Your task to perform on an android device: toggle location history Image 0: 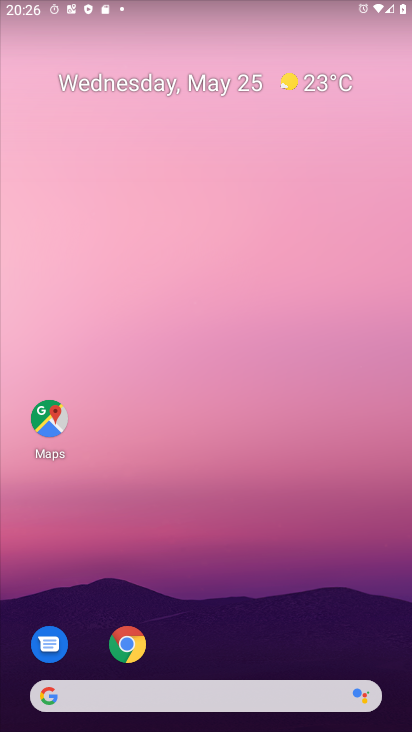
Step 0: press home button
Your task to perform on an android device: toggle location history Image 1: 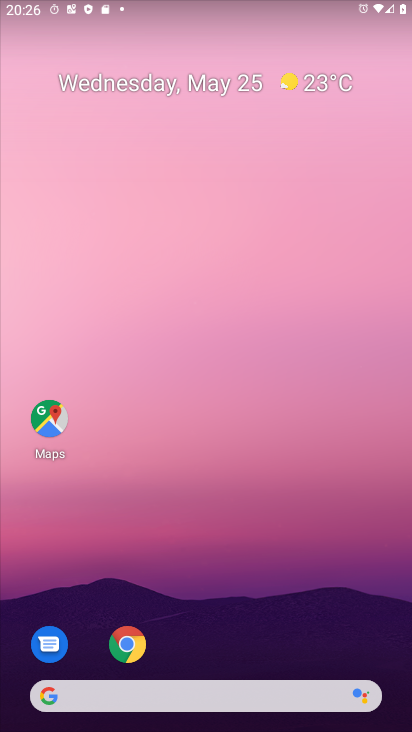
Step 1: drag from (260, 708) to (256, 71)
Your task to perform on an android device: toggle location history Image 2: 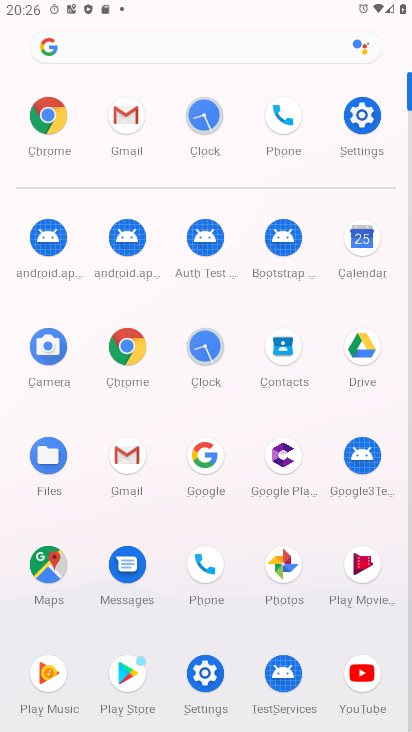
Step 2: click (357, 98)
Your task to perform on an android device: toggle location history Image 3: 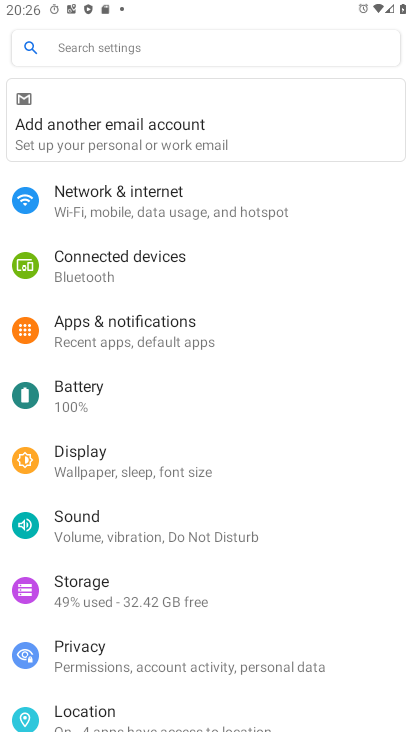
Step 3: click (161, 50)
Your task to perform on an android device: toggle location history Image 4: 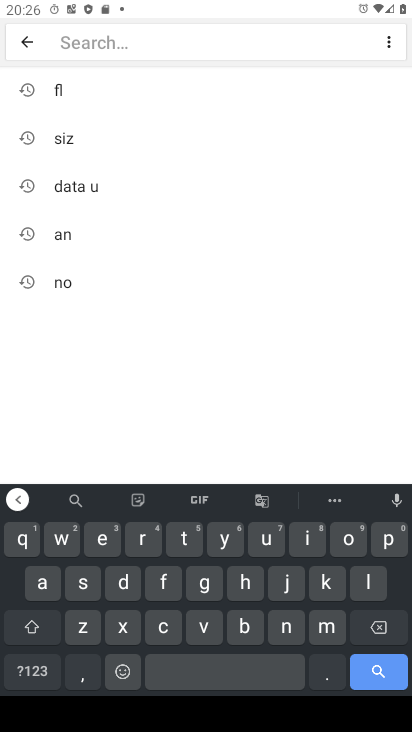
Step 4: click (375, 588)
Your task to perform on an android device: toggle location history Image 5: 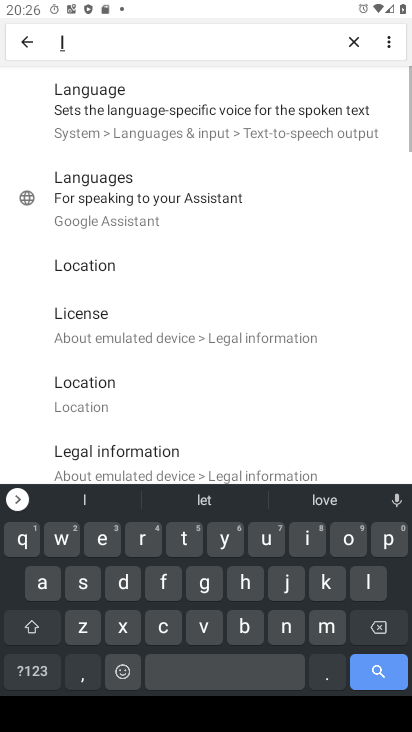
Step 5: click (348, 545)
Your task to perform on an android device: toggle location history Image 6: 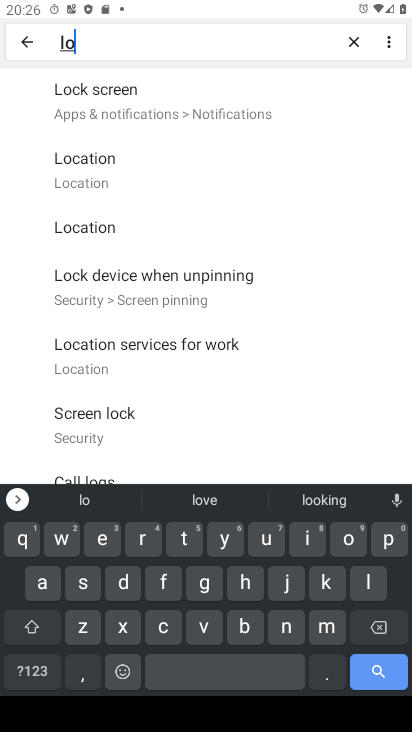
Step 6: click (107, 170)
Your task to perform on an android device: toggle location history Image 7: 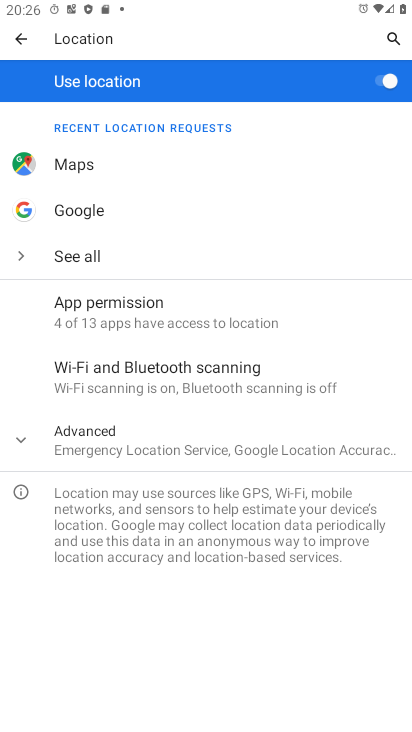
Step 7: click (71, 413)
Your task to perform on an android device: toggle location history Image 8: 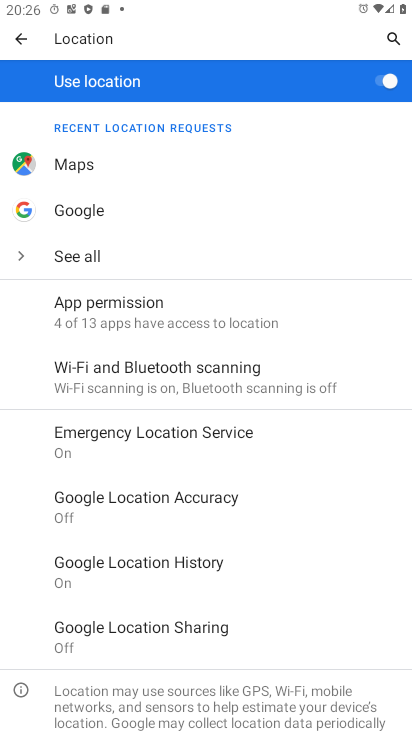
Step 8: click (144, 560)
Your task to perform on an android device: toggle location history Image 9: 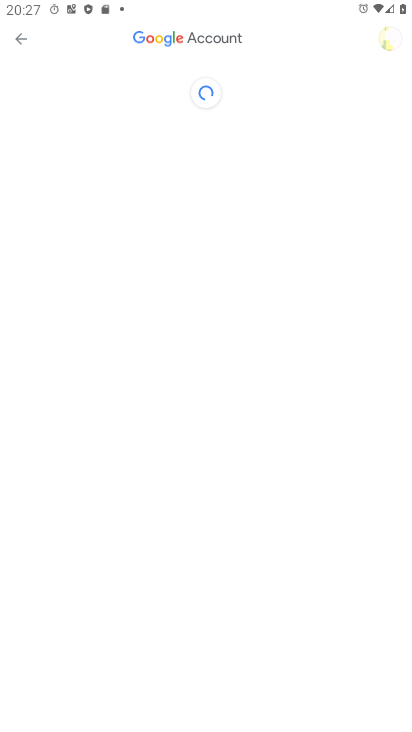
Step 9: task complete